Your task to perform on an android device: find which apps use the phone's location Image 0: 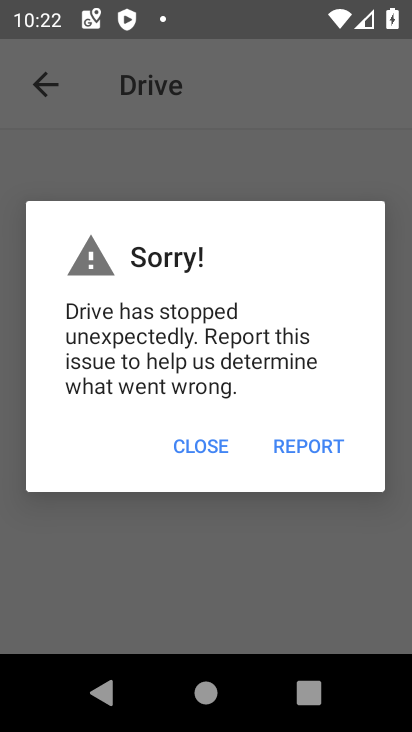
Step 0: press home button
Your task to perform on an android device: find which apps use the phone's location Image 1: 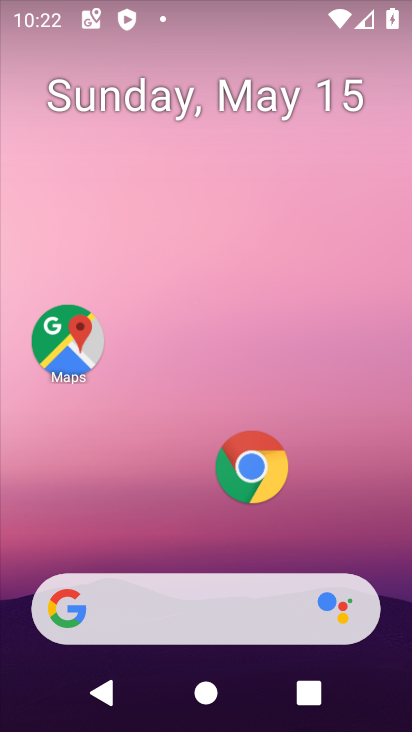
Step 1: drag from (225, 550) to (248, 106)
Your task to perform on an android device: find which apps use the phone's location Image 2: 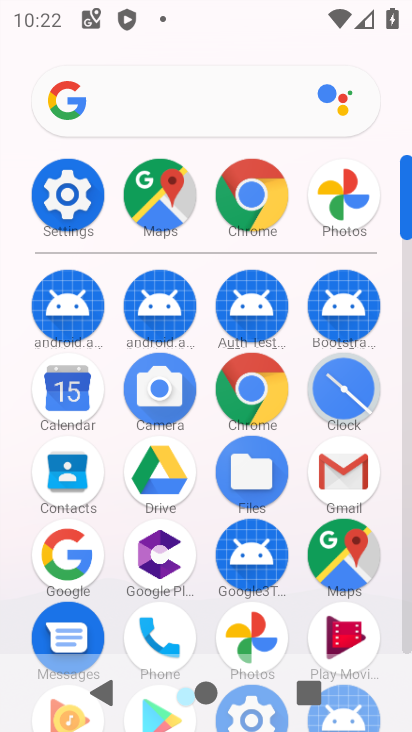
Step 2: click (71, 203)
Your task to perform on an android device: find which apps use the phone's location Image 3: 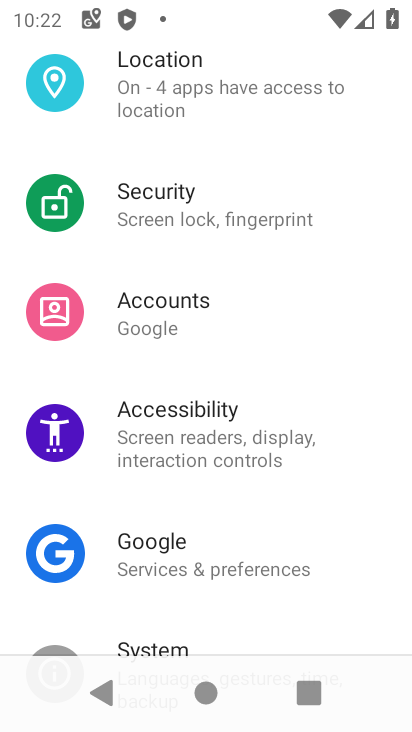
Step 3: drag from (216, 580) to (221, 11)
Your task to perform on an android device: find which apps use the phone's location Image 4: 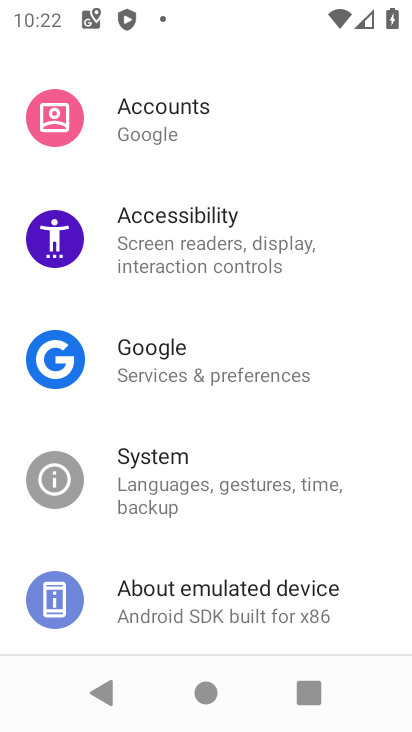
Step 4: drag from (96, 203) to (260, 580)
Your task to perform on an android device: find which apps use the phone's location Image 5: 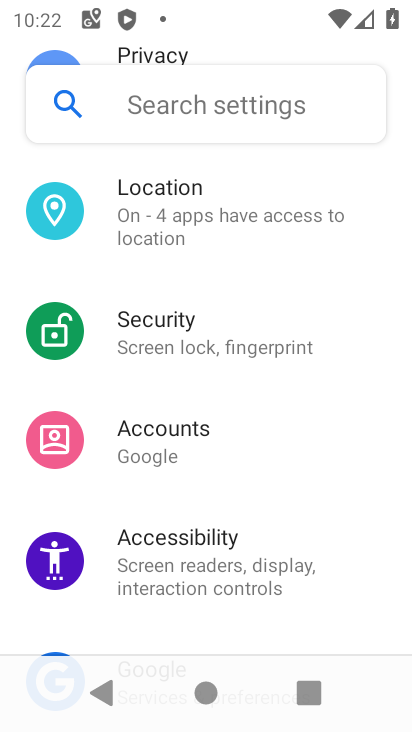
Step 5: click (168, 218)
Your task to perform on an android device: find which apps use the phone's location Image 6: 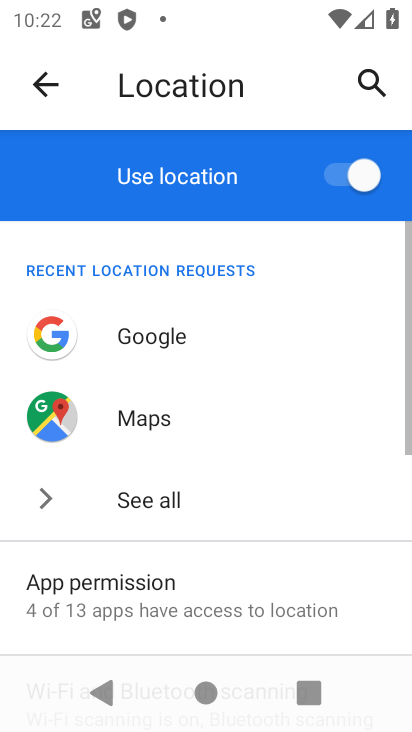
Step 6: drag from (164, 547) to (188, 189)
Your task to perform on an android device: find which apps use the phone's location Image 7: 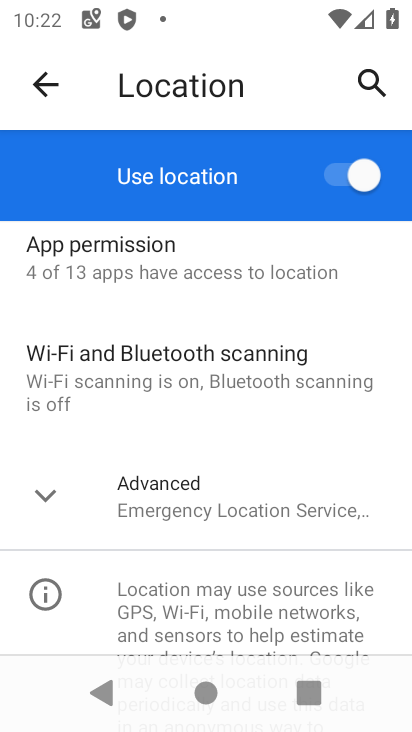
Step 7: click (224, 514)
Your task to perform on an android device: find which apps use the phone's location Image 8: 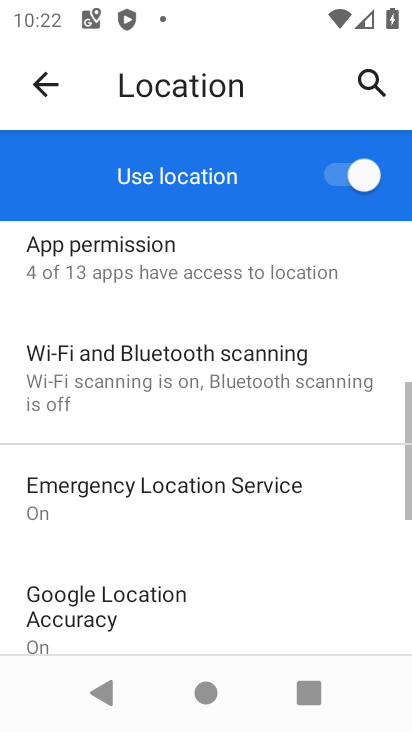
Step 8: drag from (214, 506) to (288, 144)
Your task to perform on an android device: find which apps use the phone's location Image 9: 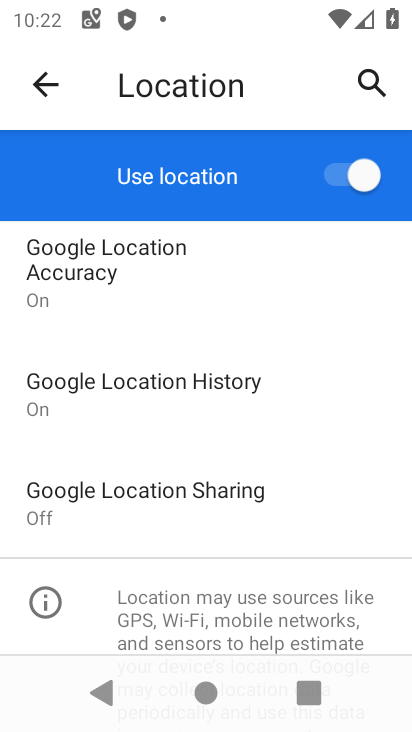
Step 9: drag from (203, 327) to (397, 718)
Your task to perform on an android device: find which apps use the phone's location Image 10: 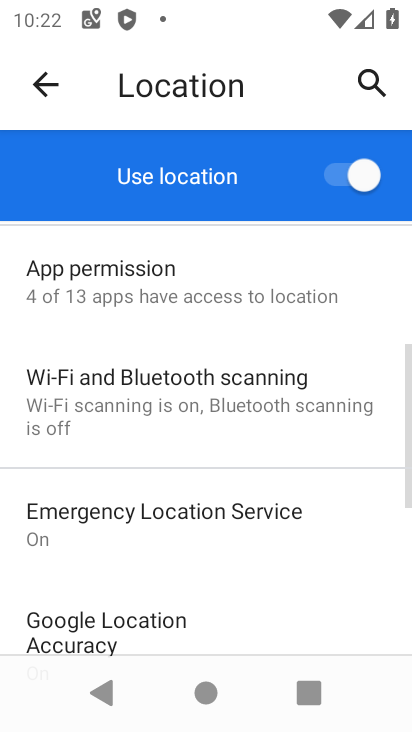
Step 10: click (142, 291)
Your task to perform on an android device: find which apps use the phone's location Image 11: 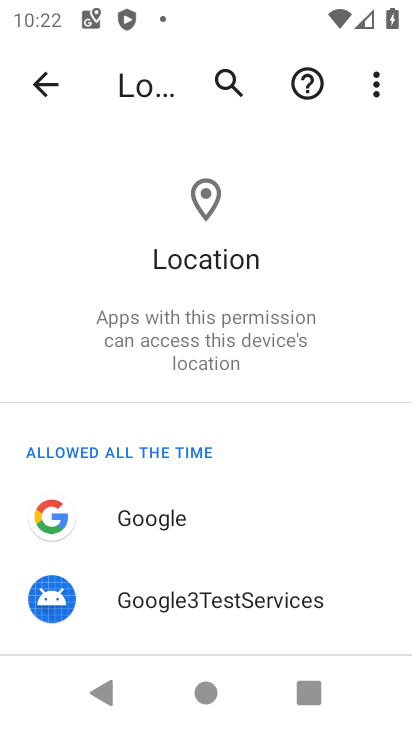
Step 11: task complete